Your task to perform on an android device: Go to Google maps Image 0: 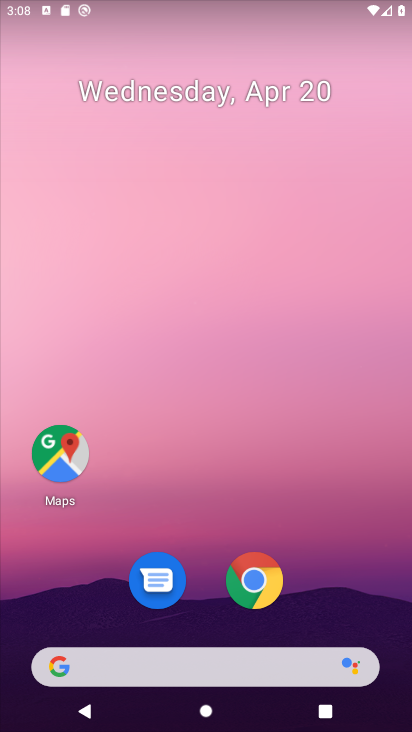
Step 0: click (43, 239)
Your task to perform on an android device: Go to Google maps Image 1: 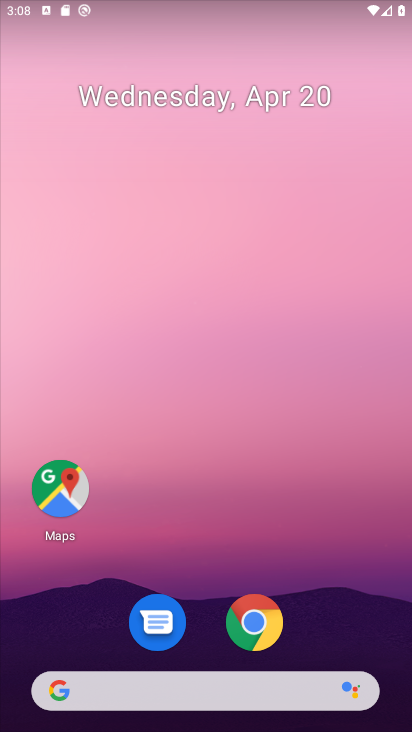
Step 1: click (55, 448)
Your task to perform on an android device: Go to Google maps Image 2: 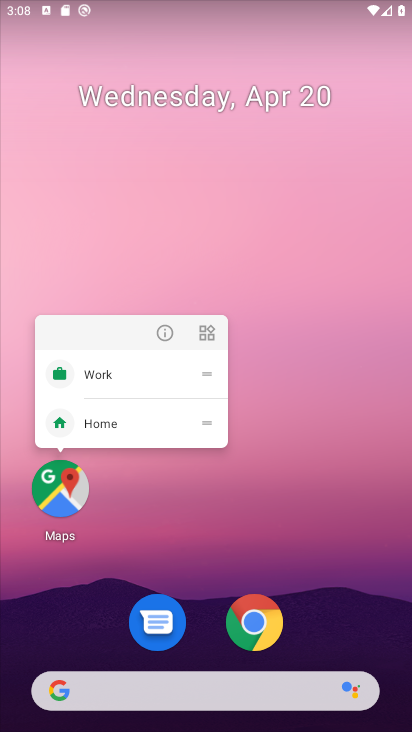
Step 2: click (61, 489)
Your task to perform on an android device: Go to Google maps Image 3: 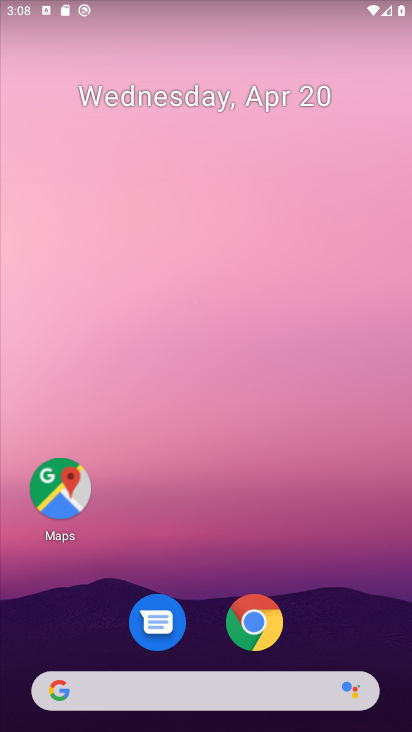
Step 3: click (61, 489)
Your task to perform on an android device: Go to Google maps Image 4: 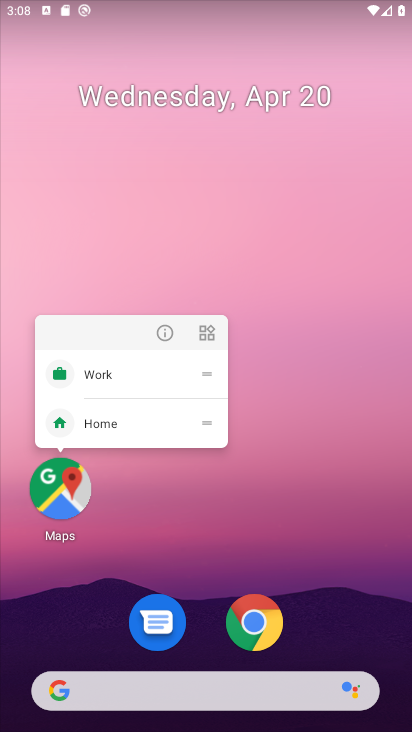
Step 4: click (62, 490)
Your task to perform on an android device: Go to Google maps Image 5: 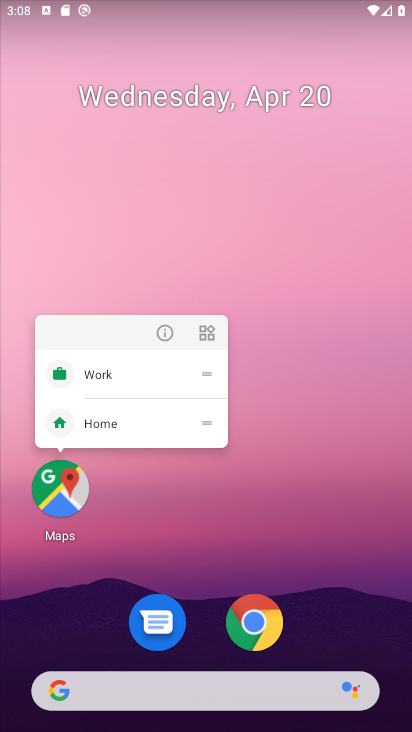
Step 5: click (63, 491)
Your task to perform on an android device: Go to Google maps Image 6: 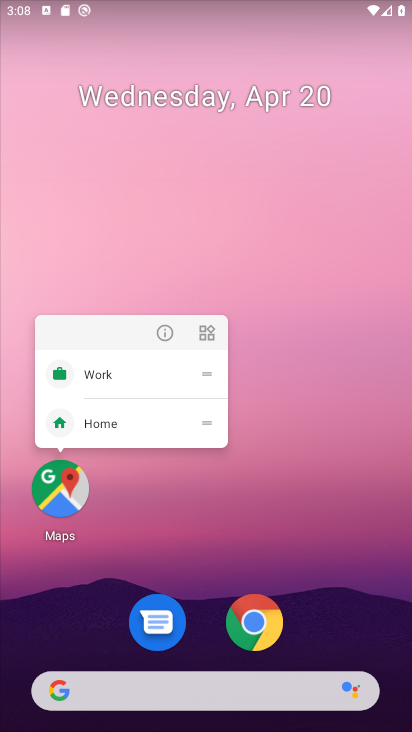
Step 6: click (63, 491)
Your task to perform on an android device: Go to Google maps Image 7: 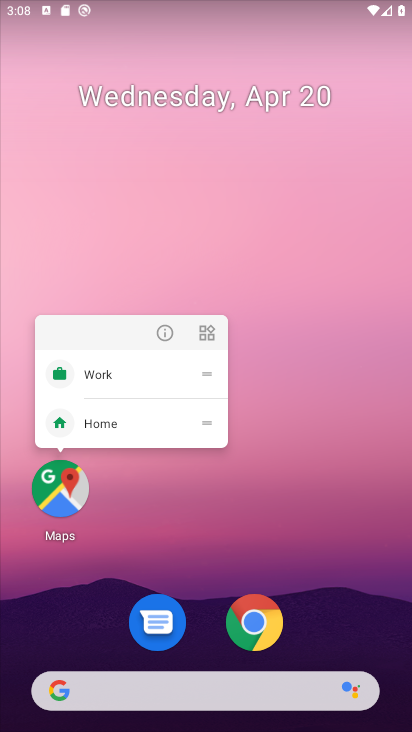
Step 7: click (63, 491)
Your task to perform on an android device: Go to Google maps Image 8: 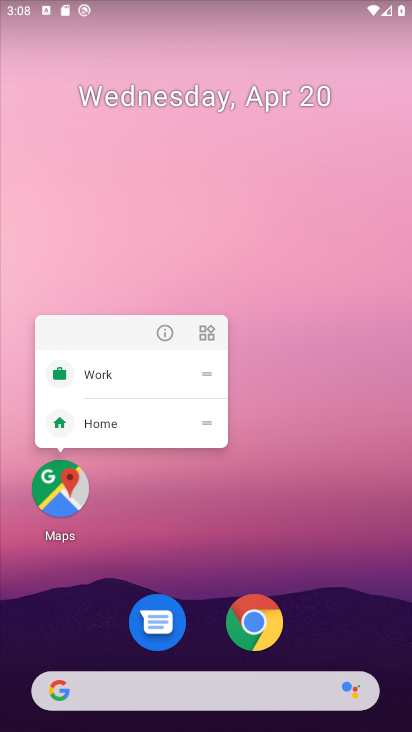
Step 8: click (63, 491)
Your task to perform on an android device: Go to Google maps Image 9: 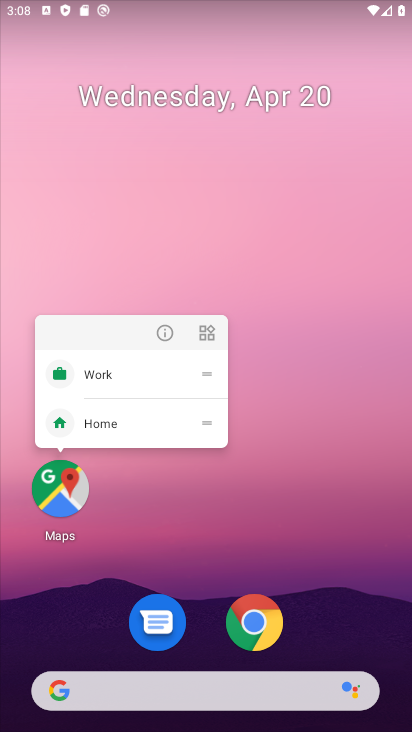
Step 9: click (63, 491)
Your task to perform on an android device: Go to Google maps Image 10: 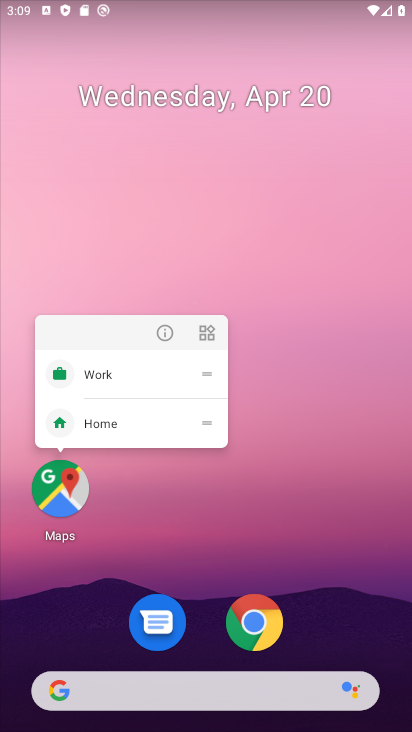
Step 10: click (63, 511)
Your task to perform on an android device: Go to Google maps Image 11: 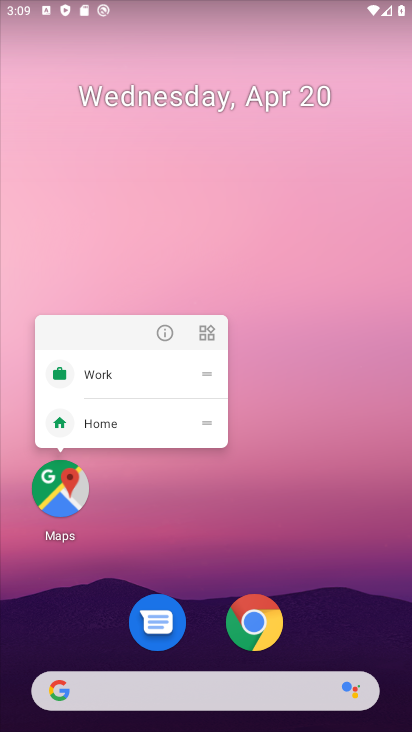
Step 11: click (57, 498)
Your task to perform on an android device: Go to Google maps Image 12: 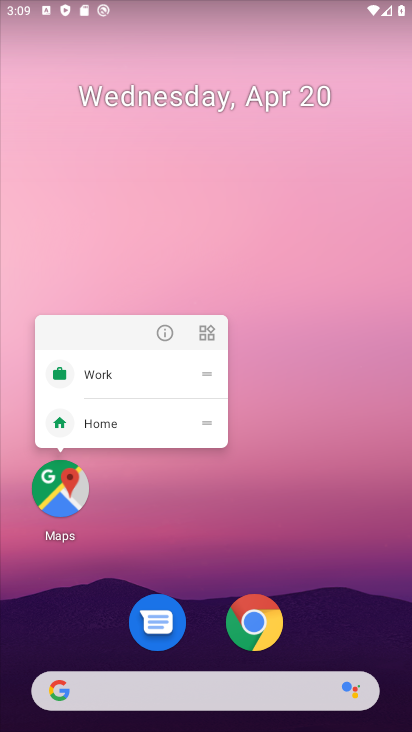
Step 12: click (56, 498)
Your task to perform on an android device: Go to Google maps Image 13: 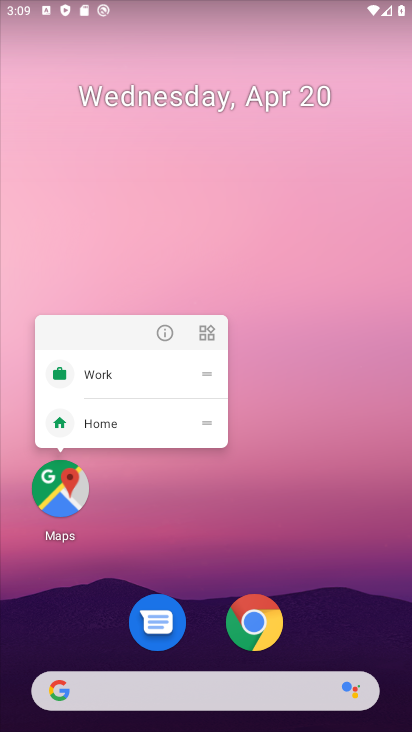
Step 13: click (56, 498)
Your task to perform on an android device: Go to Google maps Image 14: 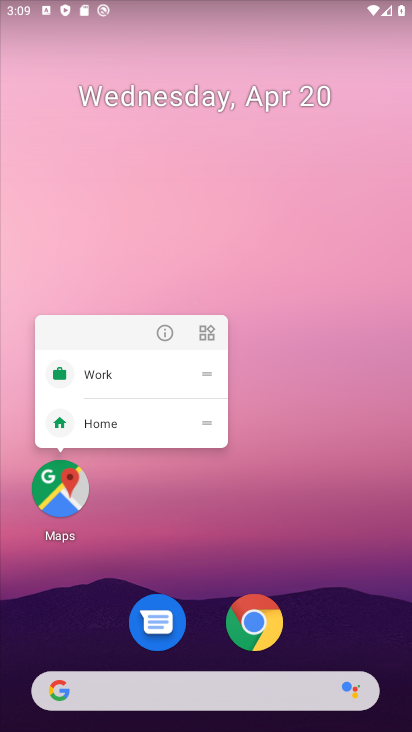
Step 14: click (56, 500)
Your task to perform on an android device: Go to Google maps Image 15: 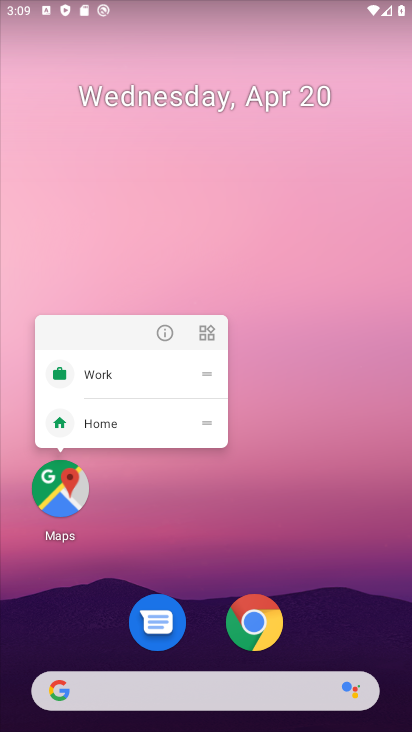
Step 15: click (56, 500)
Your task to perform on an android device: Go to Google maps Image 16: 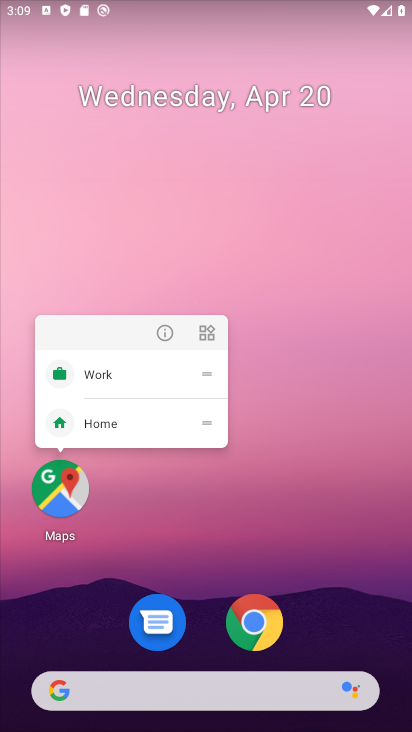
Step 16: click (56, 500)
Your task to perform on an android device: Go to Google maps Image 17: 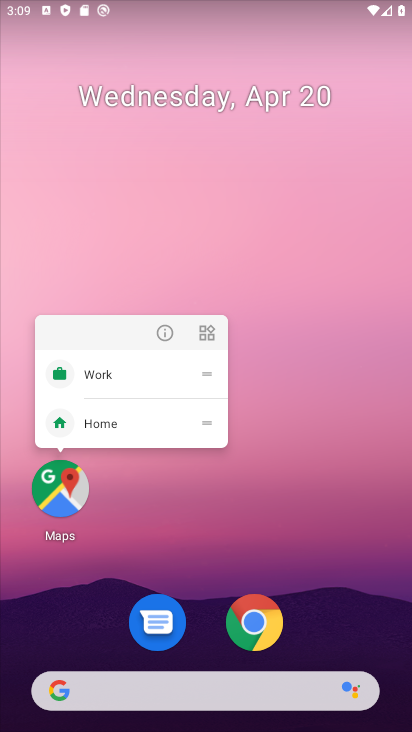
Step 17: click (56, 500)
Your task to perform on an android device: Go to Google maps Image 18: 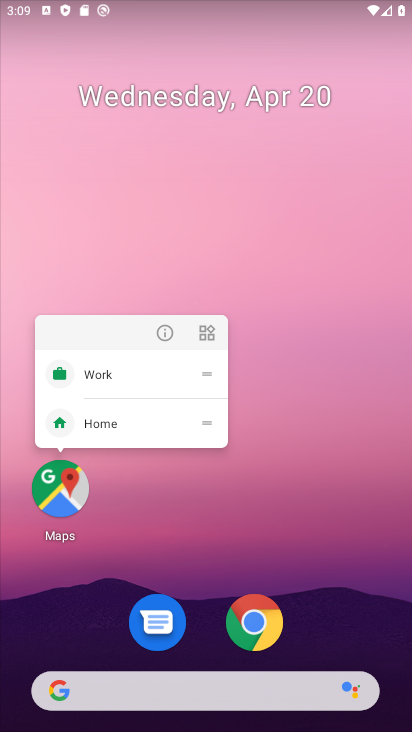
Step 18: click (56, 500)
Your task to perform on an android device: Go to Google maps Image 19: 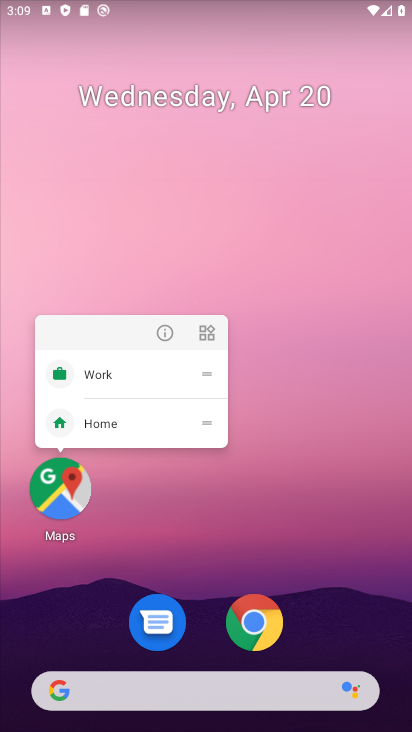
Step 19: click (56, 500)
Your task to perform on an android device: Go to Google maps Image 20: 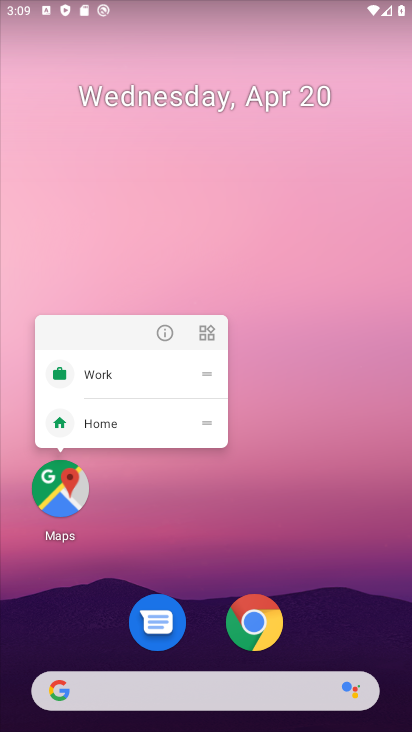
Step 20: click (56, 500)
Your task to perform on an android device: Go to Google maps Image 21: 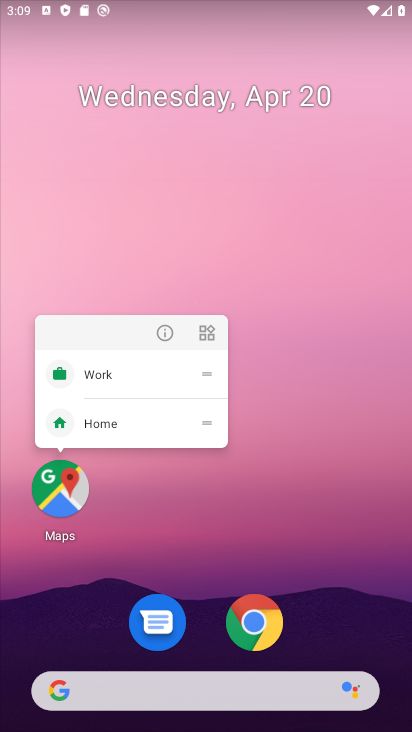
Step 21: click (56, 500)
Your task to perform on an android device: Go to Google maps Image 22: 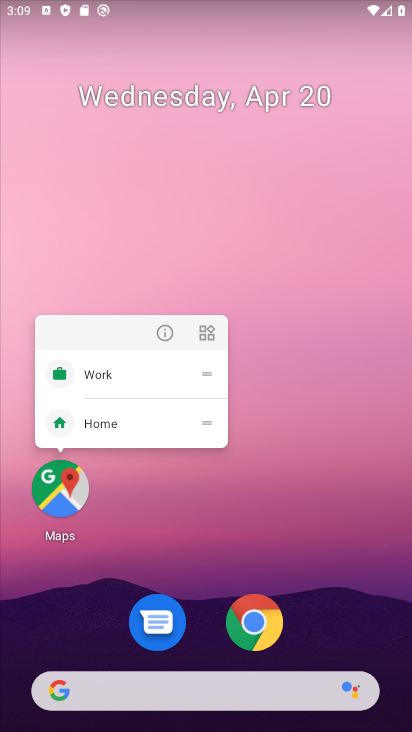
Step 22: click (56, 500)
Your task to perform on an android device: Go to Google maps Image 23: 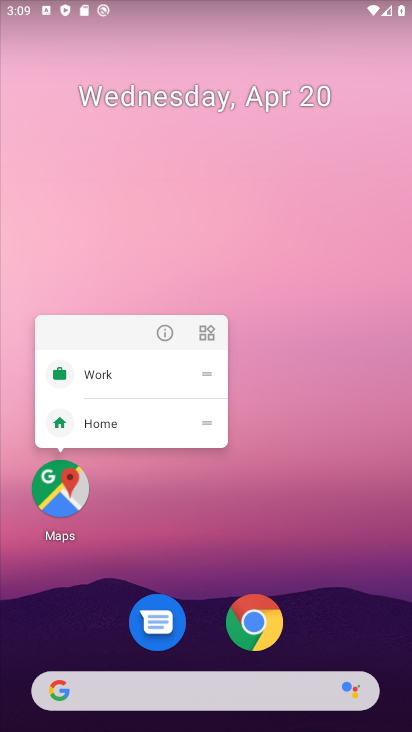
Step 23: click (56, 500)
Your task to perform on an android device: Go to Google maps Image 24: 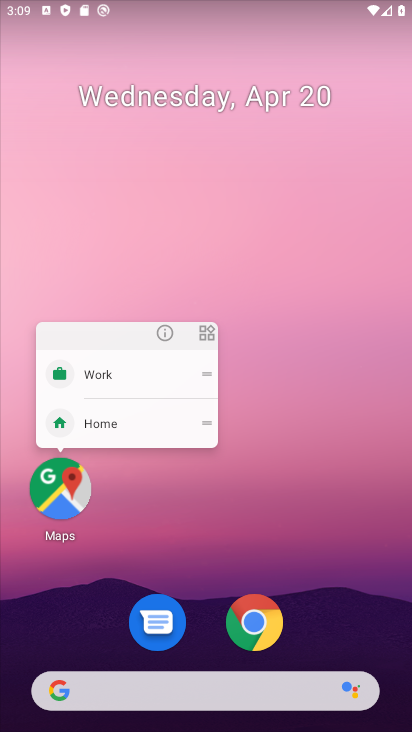
Step 24: click (56, 500)
Your task to perform on an android device: Go to Google maps Image 25: 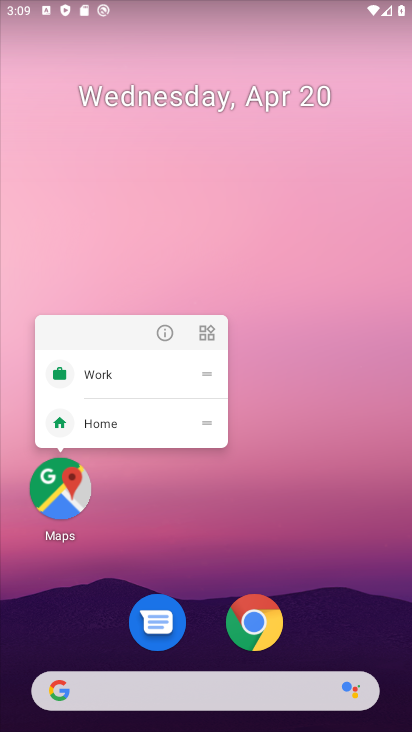
Step 25: click (56, 500)
Your task to perform on an android device: Go to Google maps Image 26: 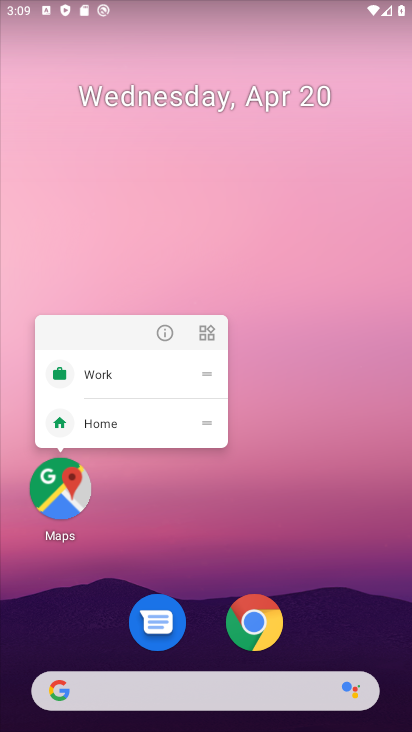
Step 26: click (56, 500)
Your task to perform on an android device: Go to Google maps Image 27: 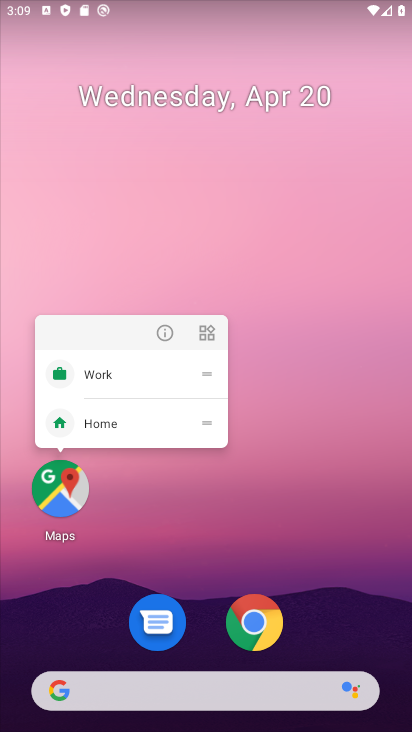
Step 27: click (56, 500)
Your task to perform on an android device: Go to Google maps Image 28: 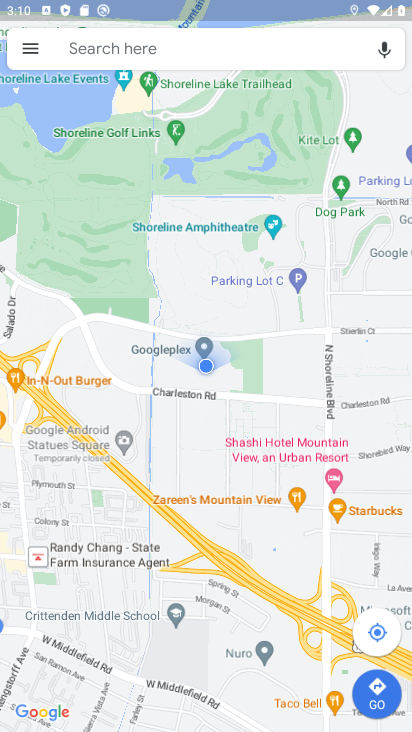
Step 28: task complete